Your task to perform on an android device: change the clock display to analog Image 0: 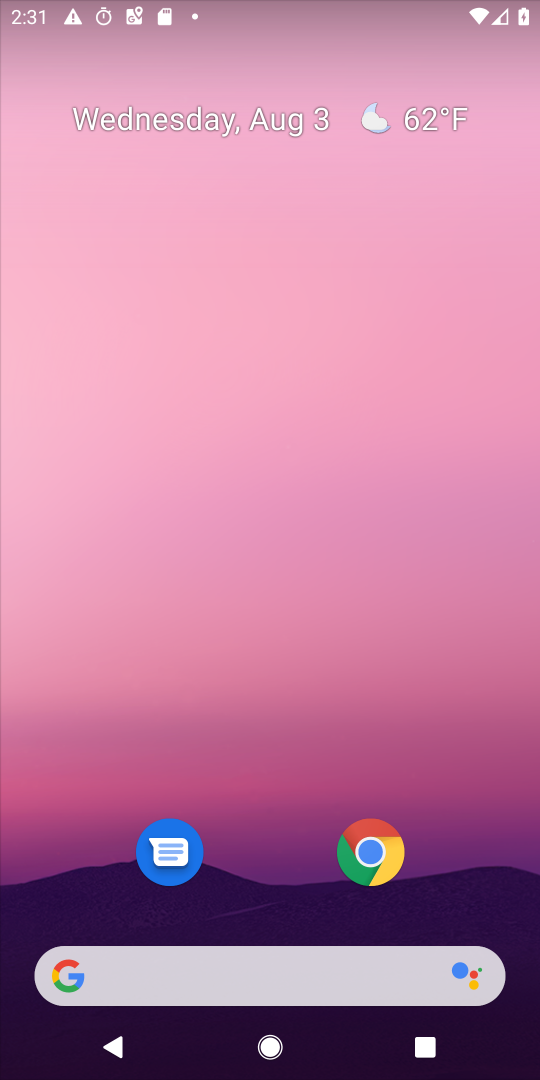
Step 0: drag from (530, 919) to (189, 43)
Your task to perform on an android device: change the clock display to analog Image 1: 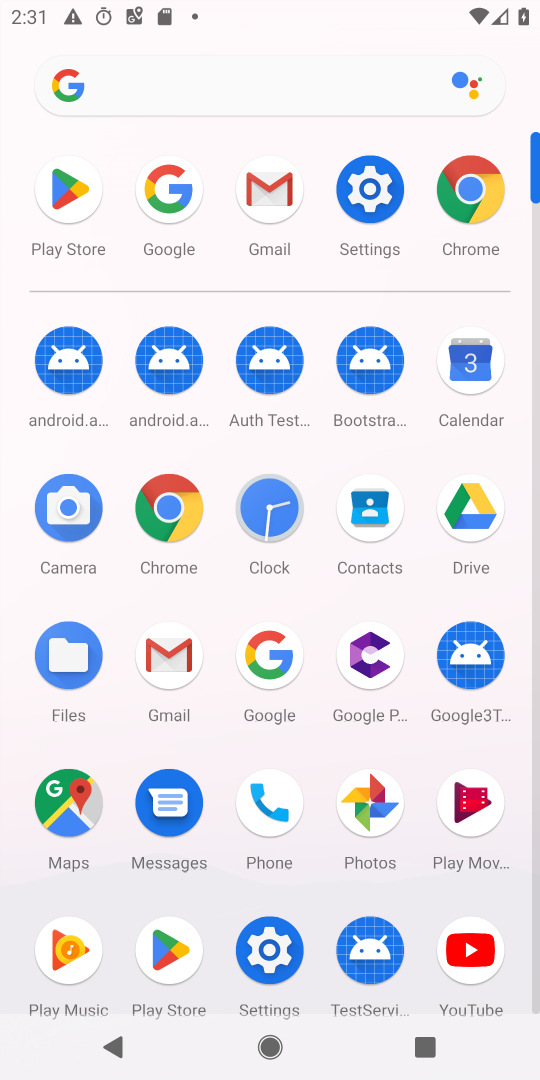
Step 1: click (276, 517)
Your task to perform on an android device: change the clock display to analog Image 2: 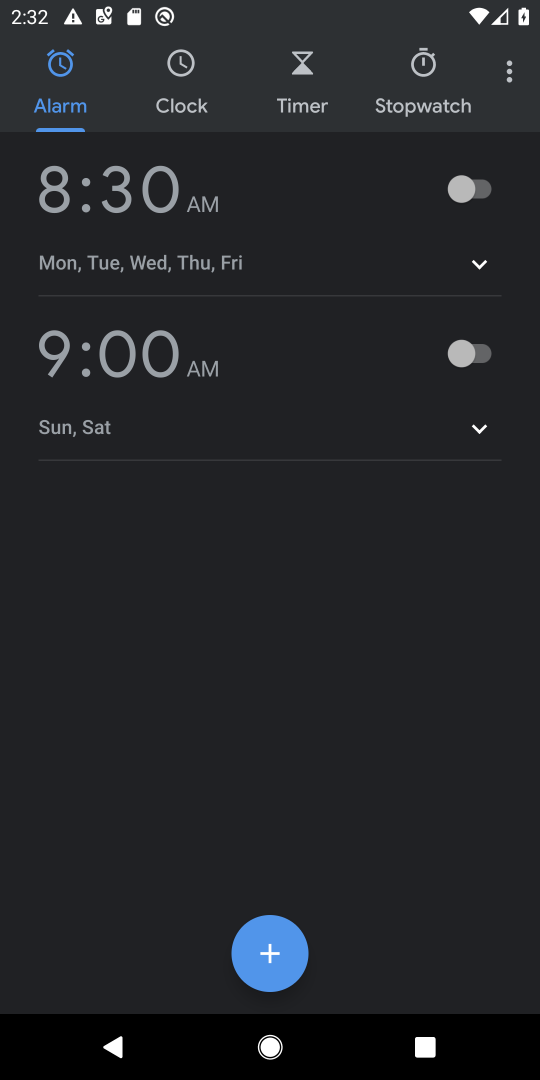
Step 2: click (508, 63)
Your task to perform on an android device: change the clock display to analog Image 3: 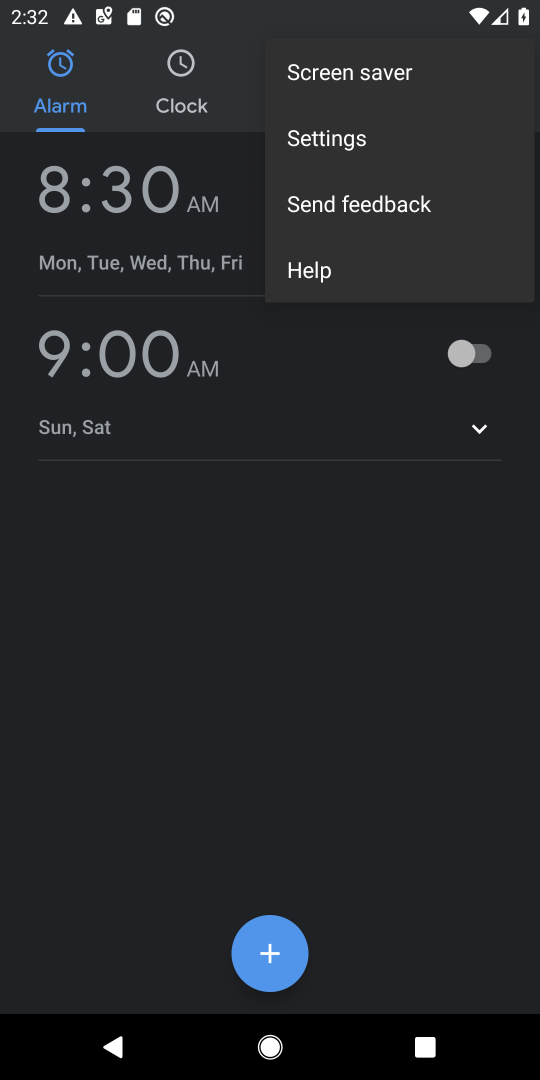
Step 3: click (305, 153)
Your task to perform on an android device: change the clock display to analog Image 4: 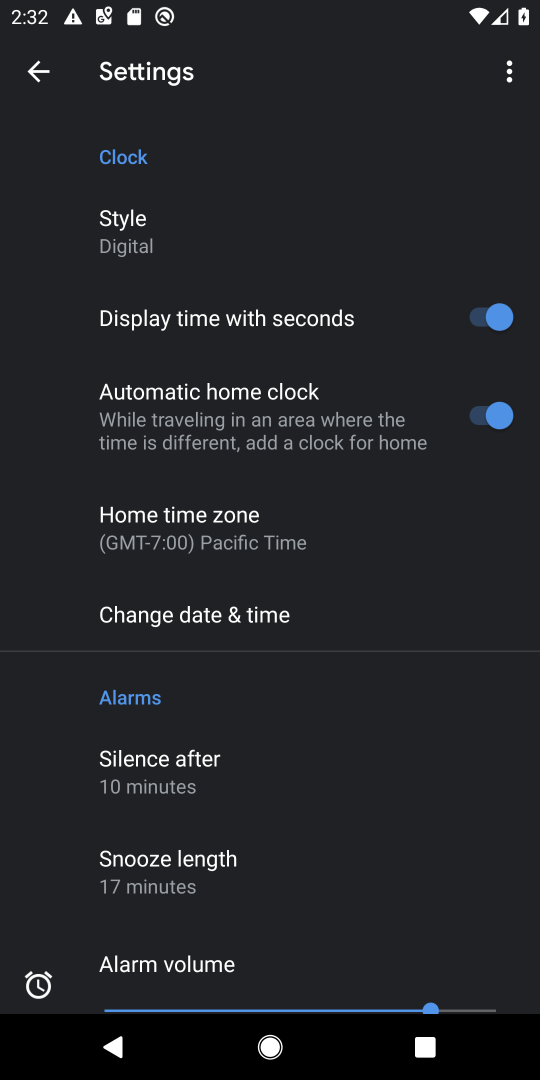
Step 4: click (187, 221)
Your task to perform on an android device: change the clock display to analog Image 5: 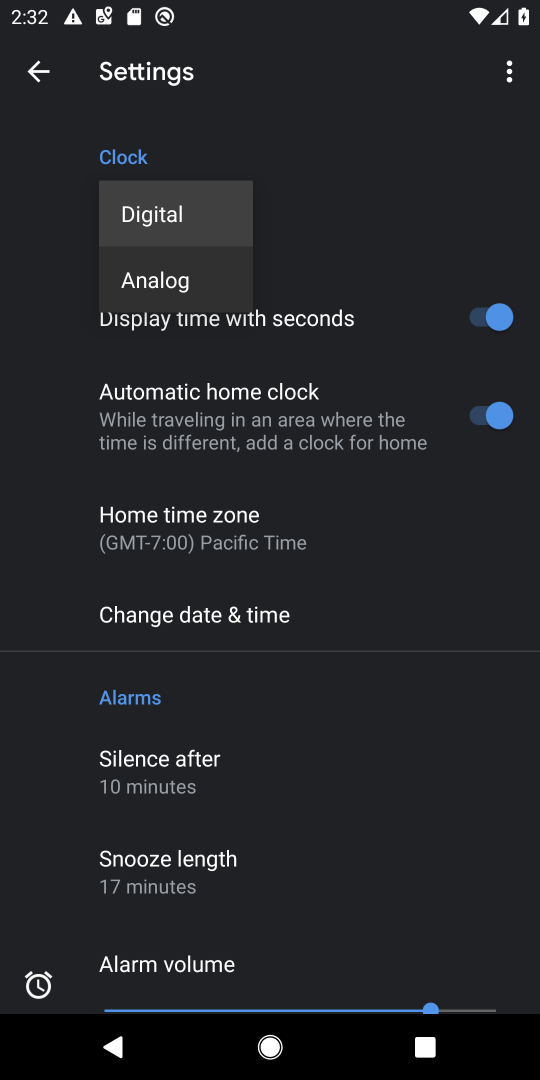
Step 5: click (175, 280)
Your task to perform on an android device: change the clock display to analog Image 6: 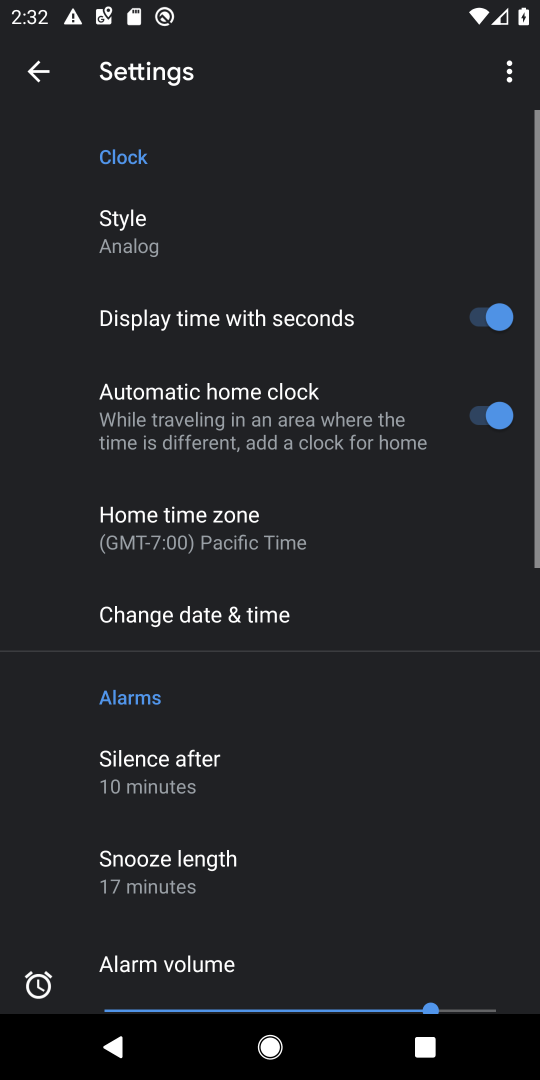
Step 6: task complete